Your task to perform on an android device: What is the news today? Image 0: 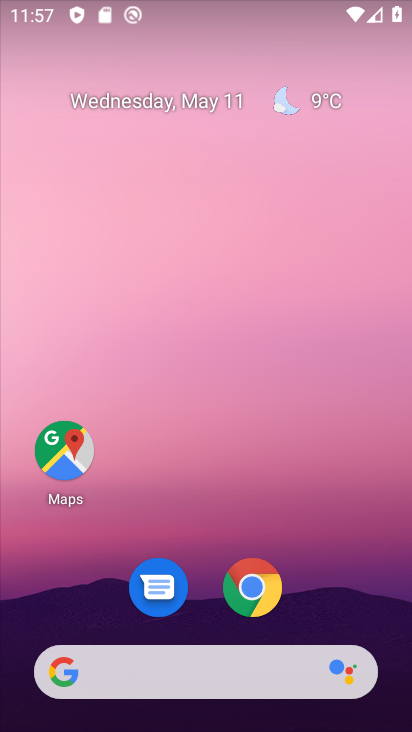
Step 0: drag from (331, 566) to (326, 235)
Your task to perform on an android device: What is the news today? Image 1: 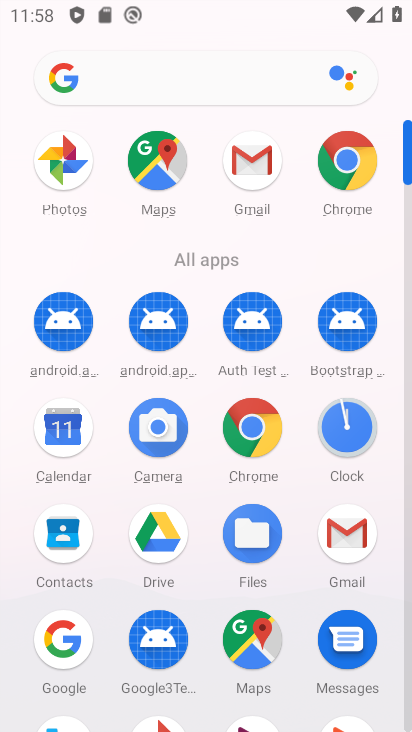
Step 1: click (350, 182)
Your task to perform on an android device: What is the news today? Image 2: 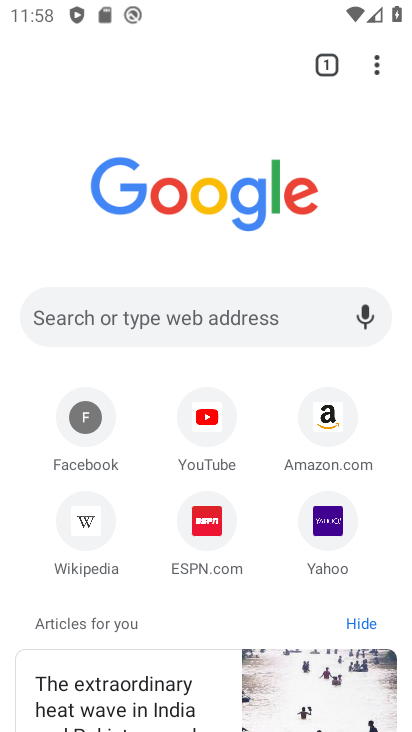
Step 2: click (181, 305)
Your task to perform on an android device: What is the news today? Image 3: 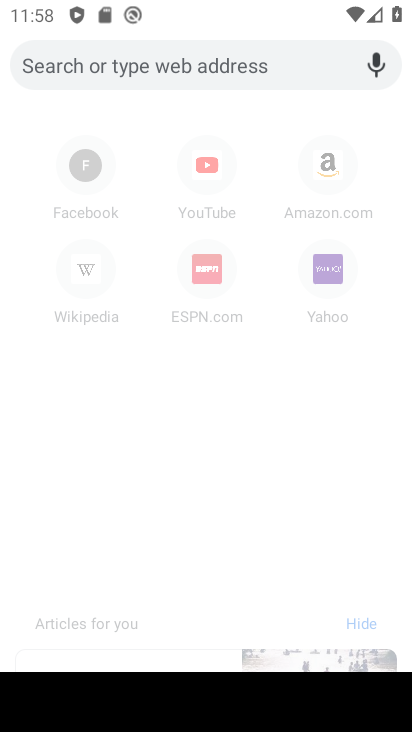
Step 3: type "What is the news today?"
Your task to perform on an android device: What is the news today? Image 4: 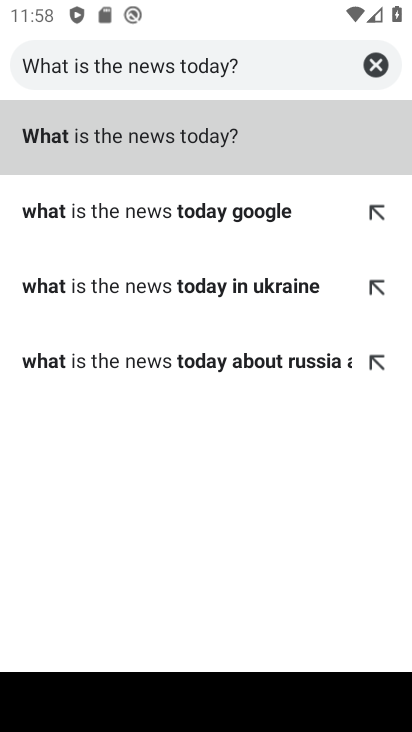
Step 4: click (170, 142)
Your task to perform on an android device: What is the news today? Image 5: 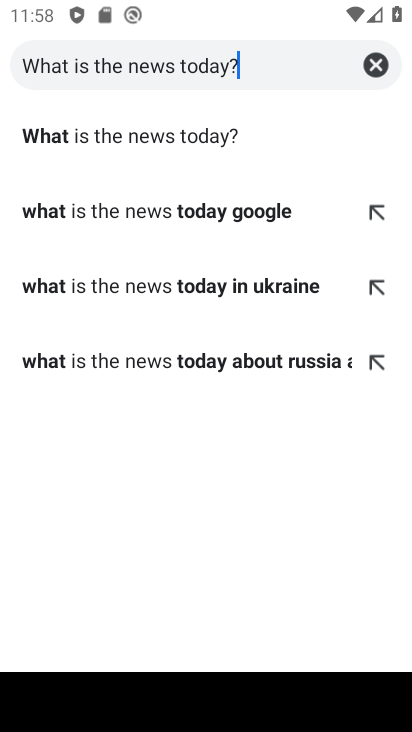
Step 5: click (171, 144)
Your task to perform on an android device: What is the news today? Image 6: 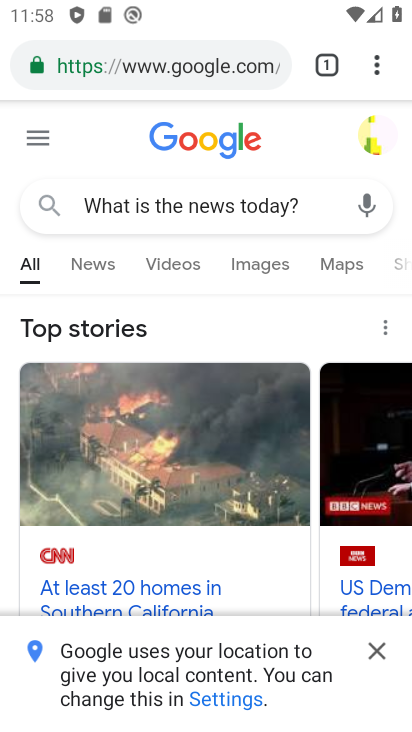
Step 6: task complete